Your task to perform on an android device: turn off javascript in the chrome app Image 0: 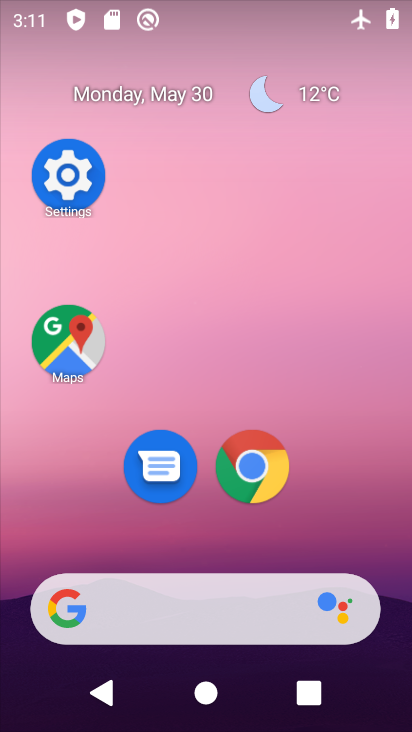
Step 0: click (266, 454)
Your task to perform on an android device: turn off javascript in the chrome app Image 1: 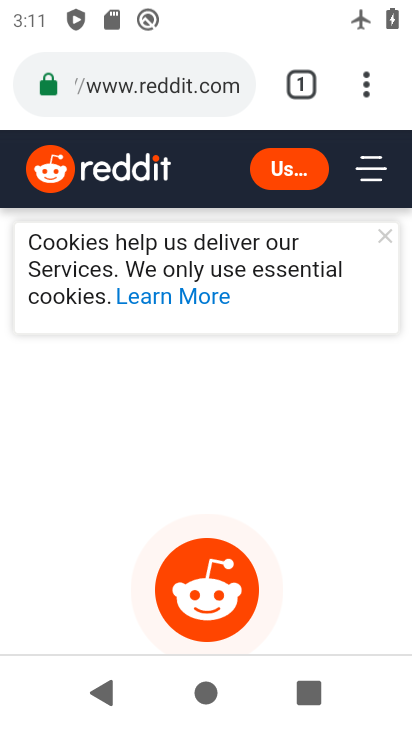
Step 1: click (380, 82)
Your task to perform on an android device: turn off javascript in the chrome app Image 2: 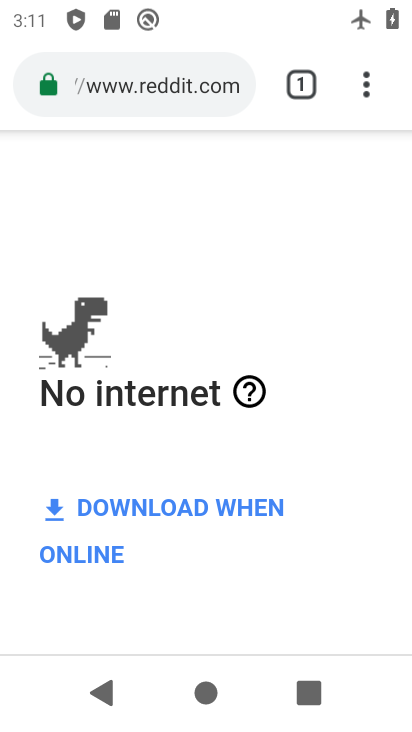
Step 2: click (362, 77)
Your task to perform on an android device: turn off javascript in the chrome app Image 3: 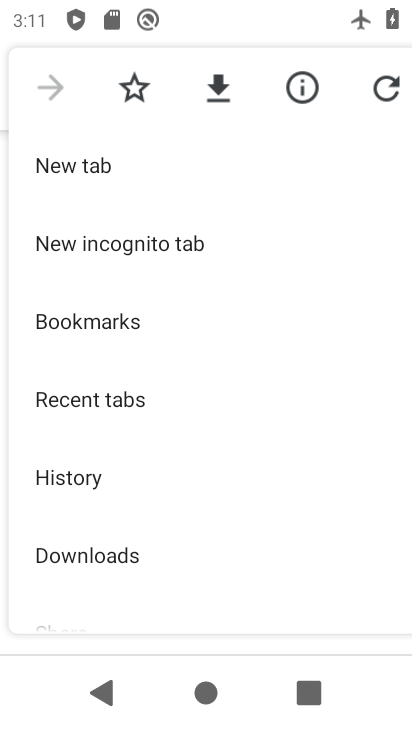
Step 3: drag from (227, 466) to (230, 164)
Your task to perform on an android device: turn off javascript in the chrome app Image 4: 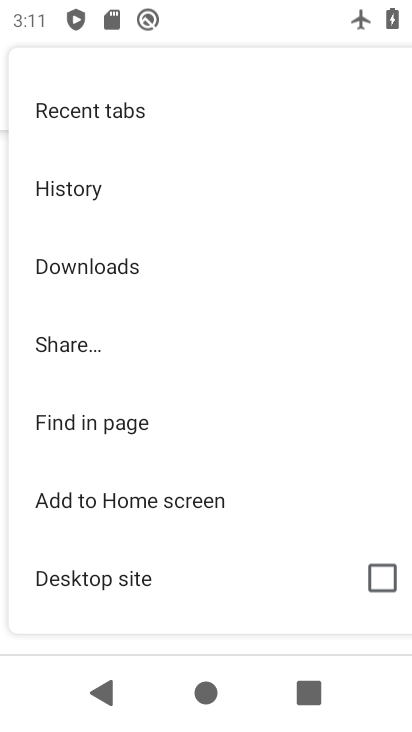
Step 4: drag from (178, 479) to (186, 189)
Your task to perform on an android device: turn off javascript in the chrome app Image 5: 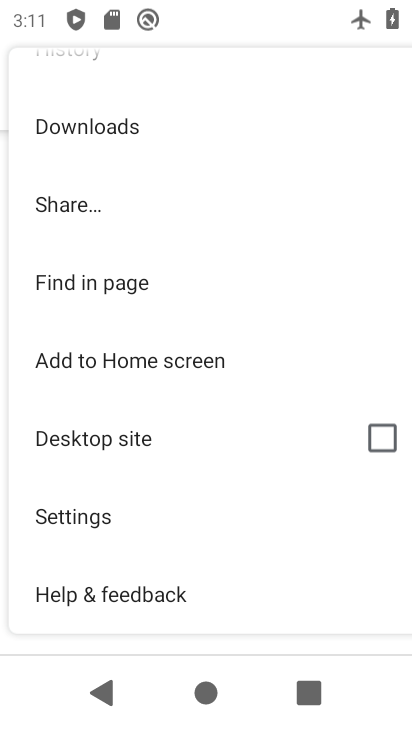
Step 5: click (167, 515)
Your task to perform on an android device: turn off javascript in the chrome app Image 6: 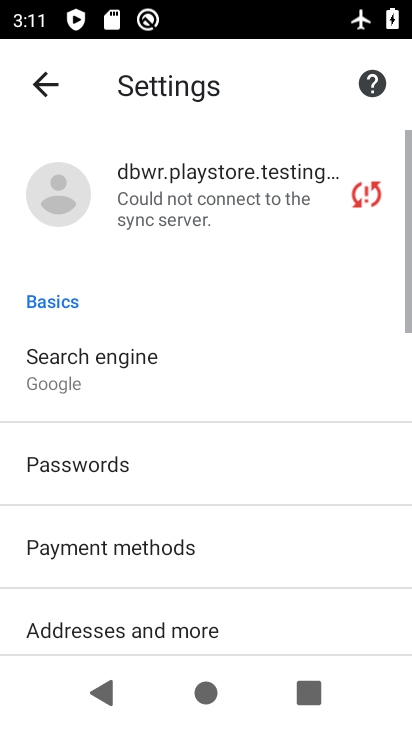
Step 6: drag from (154, 476) to (167, 163)
Your task to perform on an android device: turn off javascript in the chrome app Image 7: 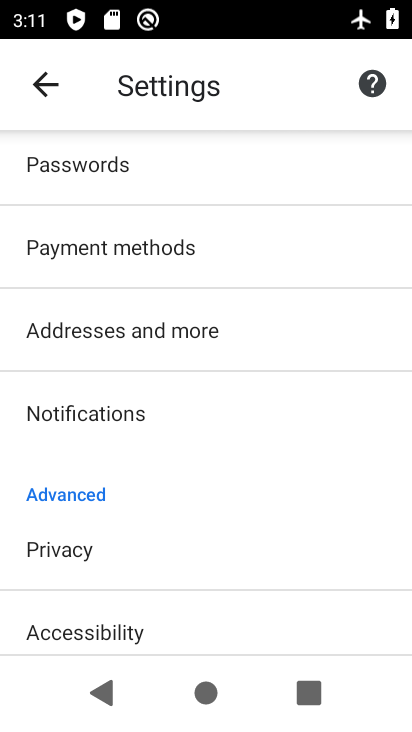
Step 7: drag from (176, 559) to (185, 169)
Your task to perform on an android device: turn off javascript in the chrome app Image 8: 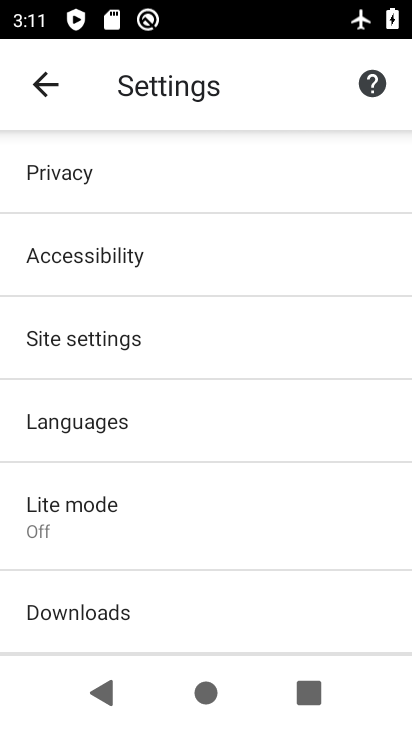
Step 8: click (145, 356)
Your task to perform on an android device: turn off javascript in the chrome app Image 9: 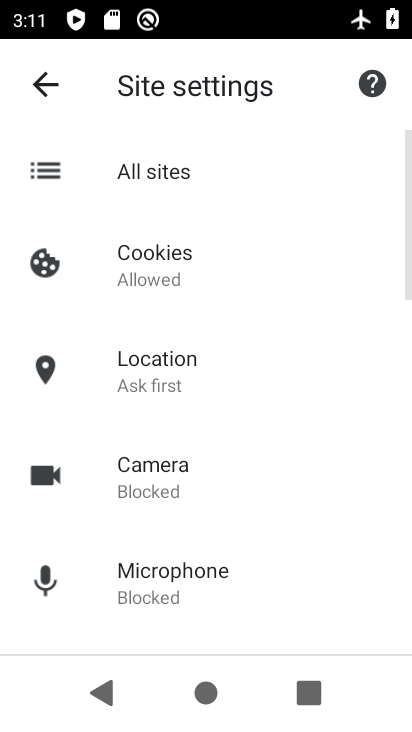
Step 9: drag from (184, 457) to (219, 173)
Your task to perform on an android device: turn off javascript in the chrome app Image 10: 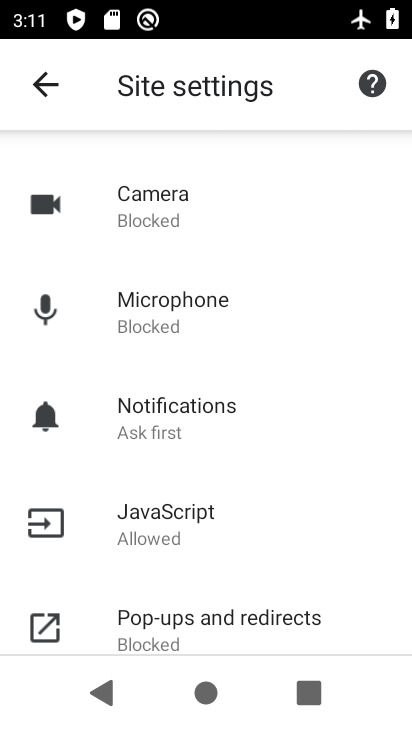
Step 10: click (189, 504)
Your task to perform on an android device: turn off javascript in the chrome app Image 11: 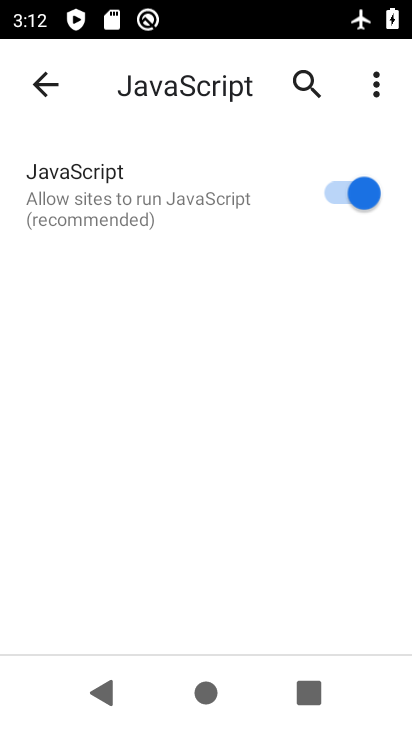
Step 11: click (351, 183)
Your task to perform on an android device: turn off javascript in the chrome app Image 12: 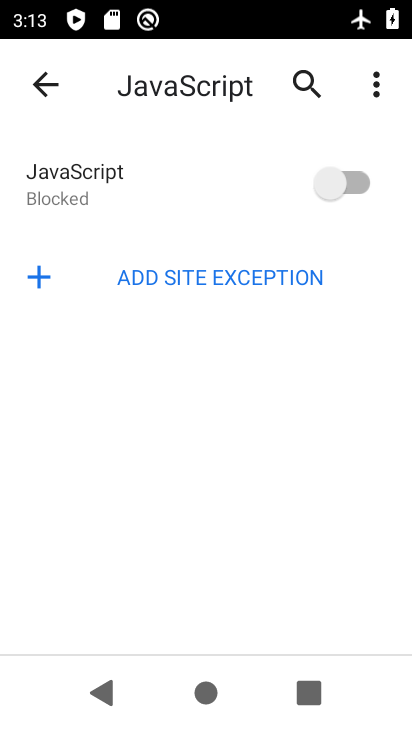
Step 12: task complete